Your task to perform on an android device: Open maps Image 0: 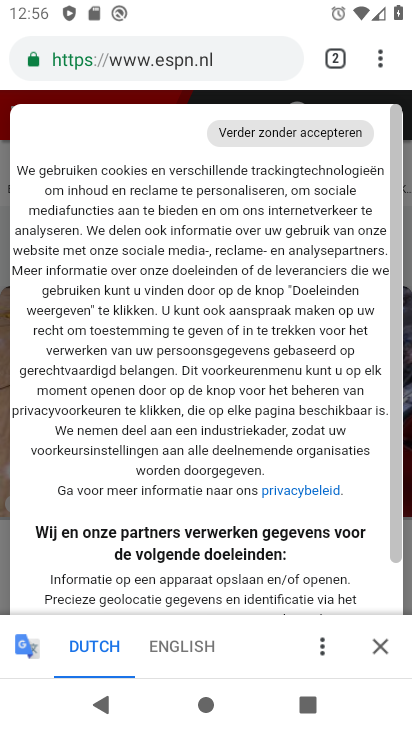
Step 0: press home button
Your task to perform on an android device: Open maps Image 1: 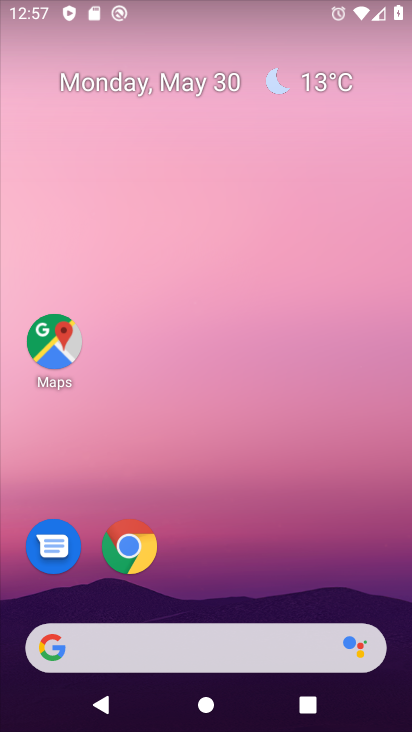
Step 1: click (53, 351)
Your task to perform on an android device: Open maps Image 2: 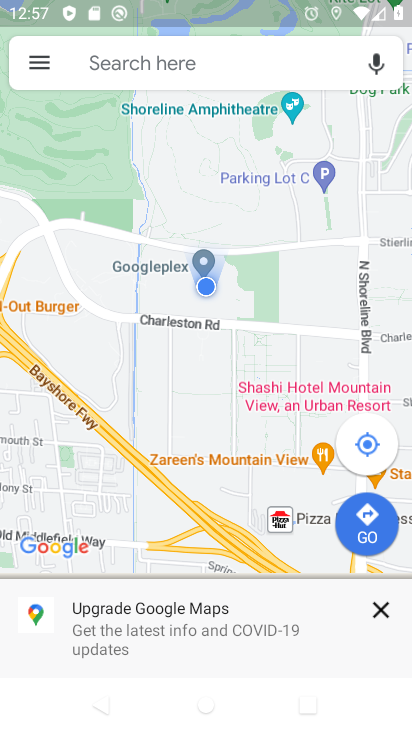
Step 2: task complete